Your task to perform on an android device: When is my next meeting? Image 0: 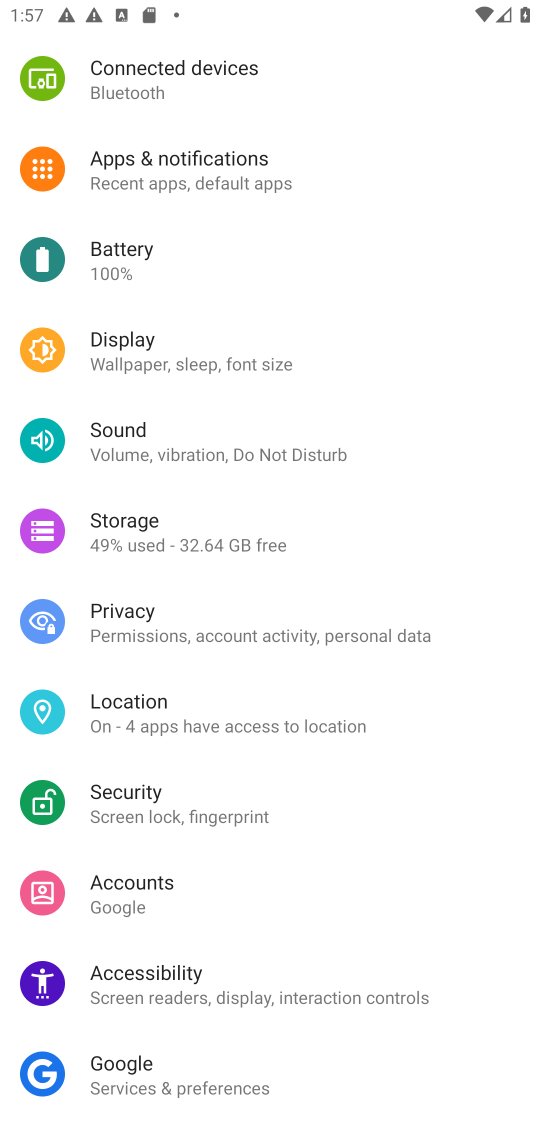
Step 0: press home button
Your task to perform on an android device: When is my next meeting? Image 1: 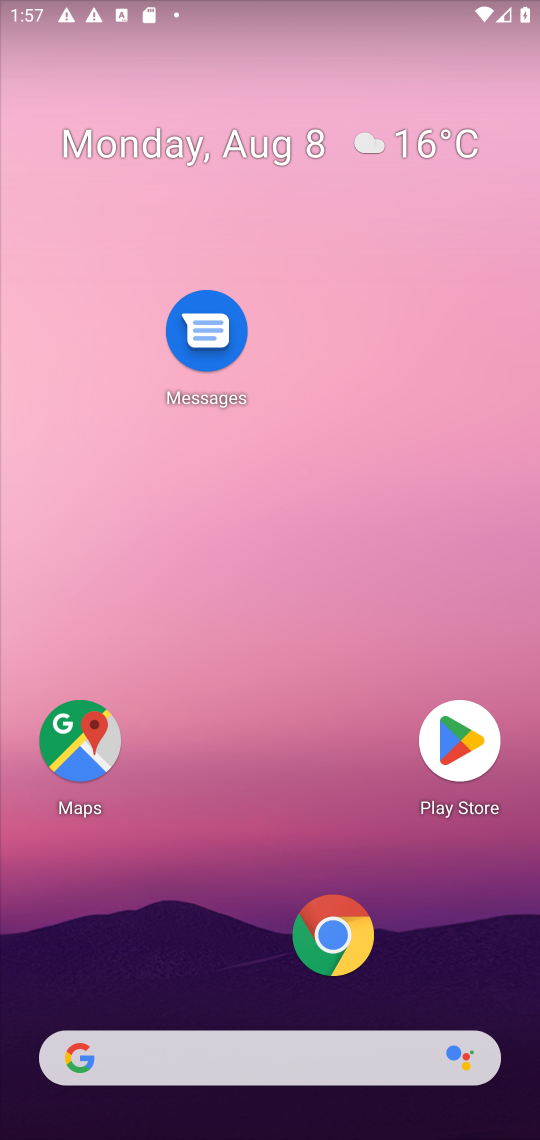
Step 1: drag from (356, 1051) to (444, 89)
Your task to perform on an android device: When is my next meeting? Image 2: 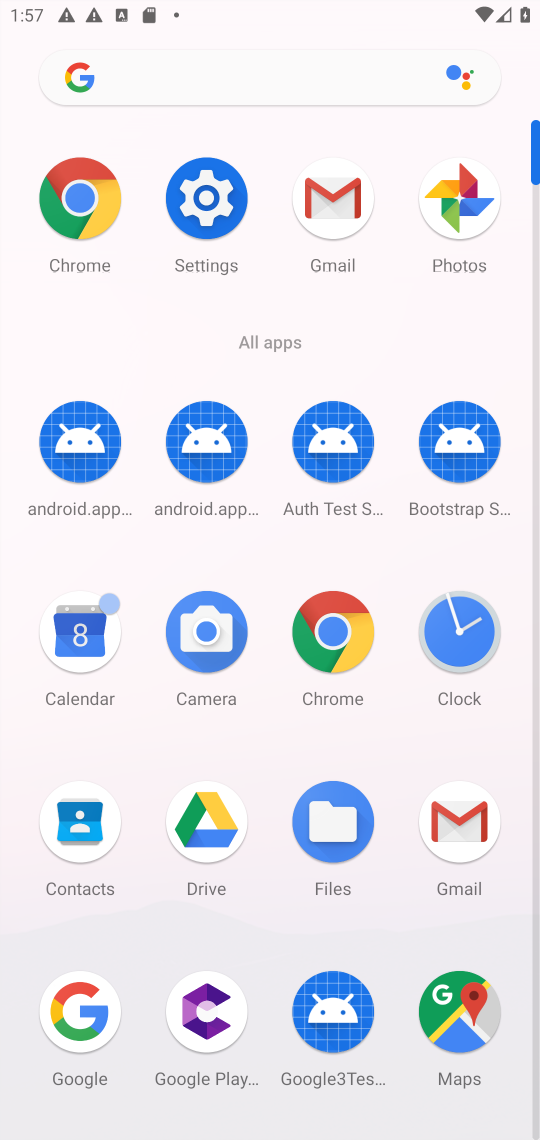
Step 2: click (70, 634)
Your task to perform on an android device: When is my next meeting? Image 3: 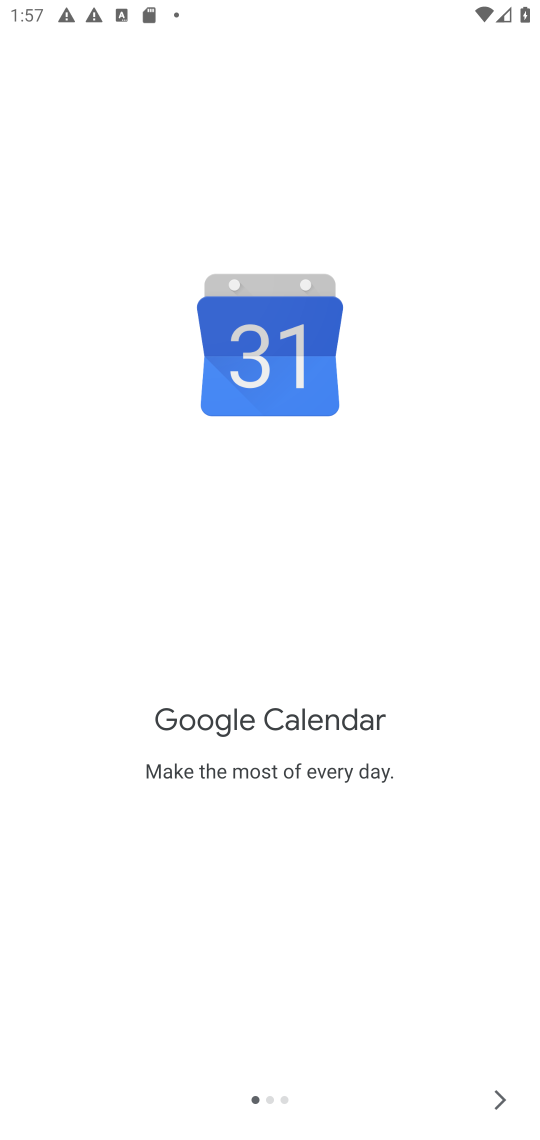
Step 3: click (505, 1098)
Your task to perform on an android device: When is my next meeting? Image 4: 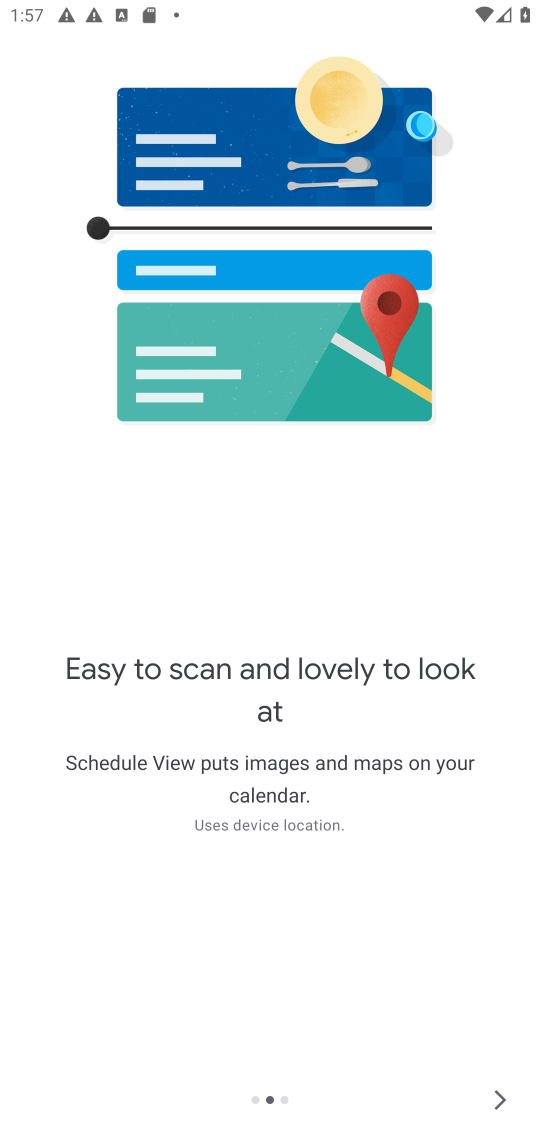
Step 4: click (505, 1098)
Your task to perform on an android device: When is my next meeting? Image 5: 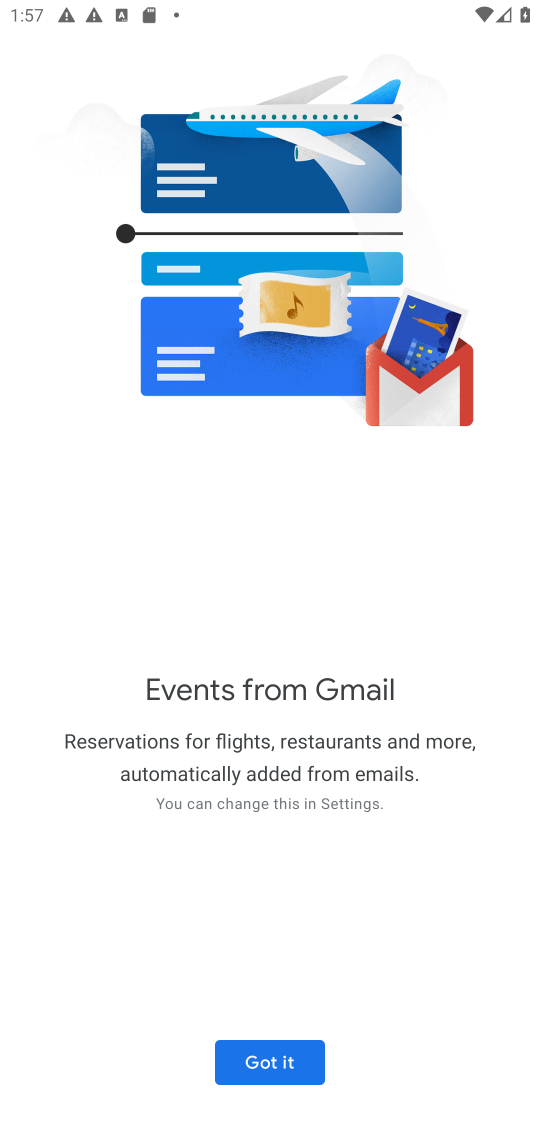
Step 5: click (283, 1079)
Your task to perform on an android device: When is my next meeting? Image 6: 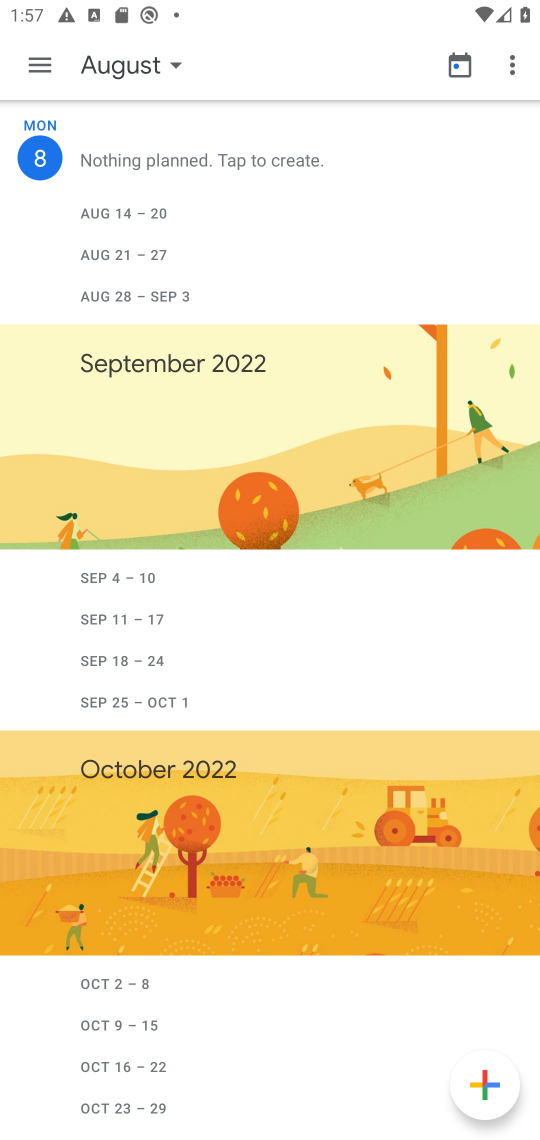
Step 6: click (170, 62)
Your task to perform on an android device: When is my next meeting? Image 7: 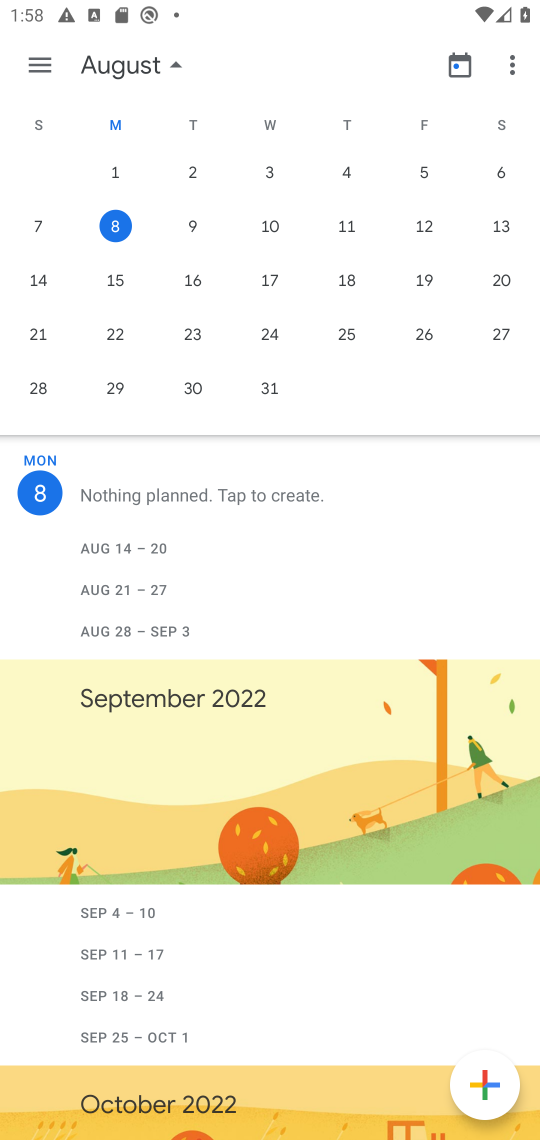
Step 7: task complete